Your task to perform on an android device: Go to privacy settings Image 0: 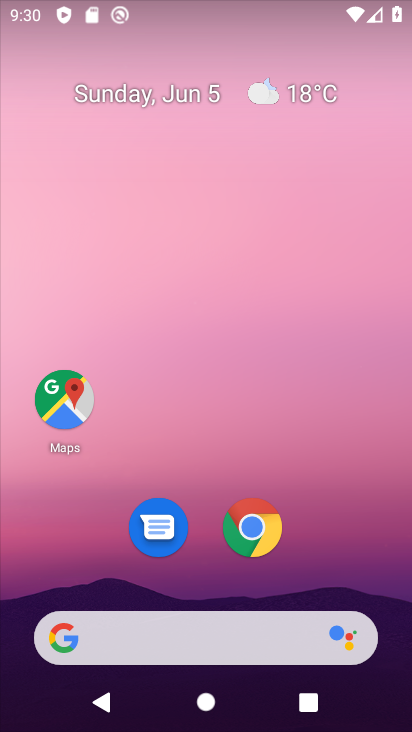
Step 0: task complete